Your task to perform on an android device: Open my contact list Image 0: 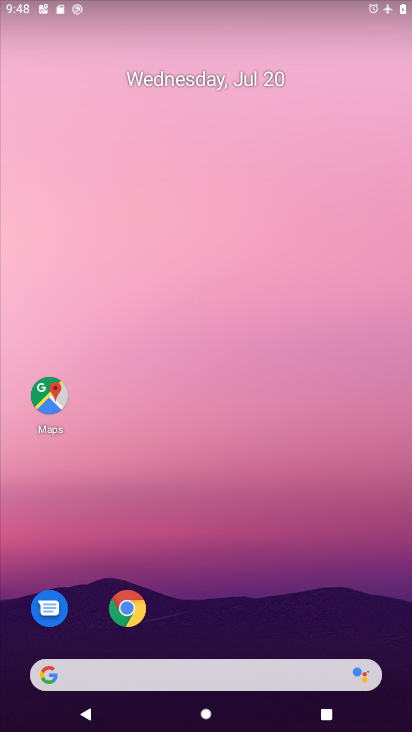
Step 0: drag from (291, 666) to (293, 193)
Your task to perform on an android device: Open my contact list Image 1: 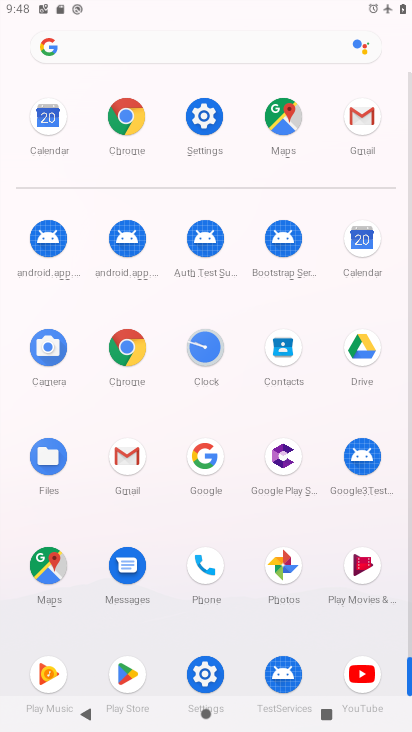
Step 1: click (199, 558)
Your task to perform on an android device: Open my contact list Image 2: 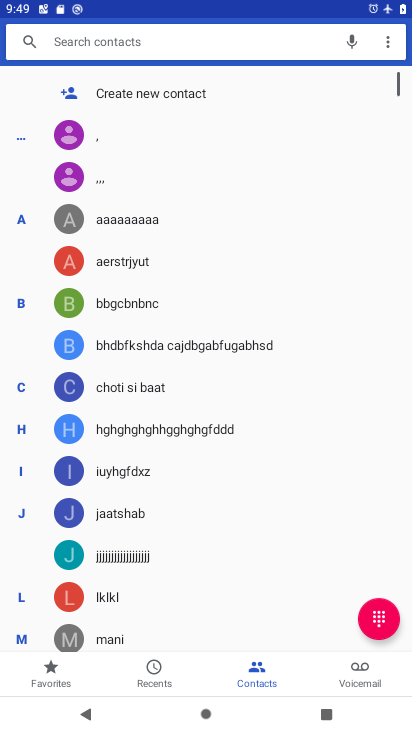
Step 2: task complete